Your task to perform on an android device: Go to Yahoo.com Image 0: 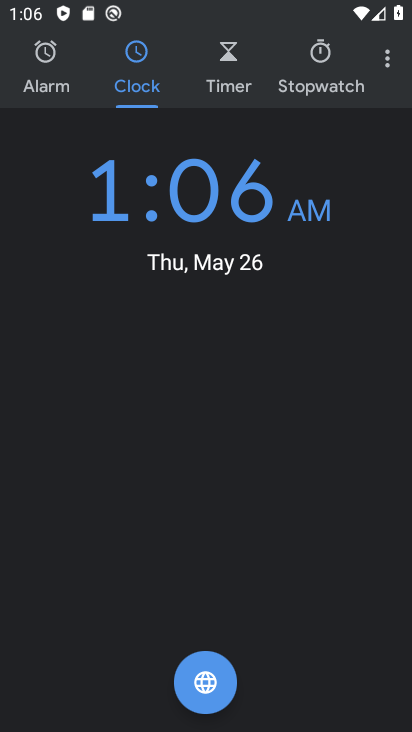
Step 0: press back button
Your task to perform on an android device: Go to Yahoo.com Image 1: 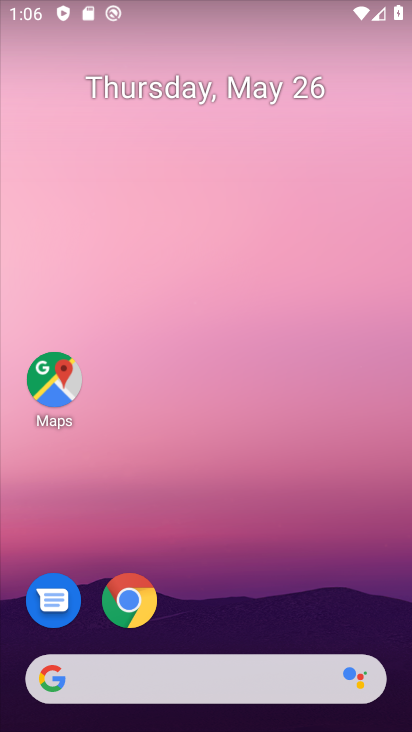
Step 1: click (129, 603)
Your task to perform on an android device: Go to Yahoo.com Image 2: 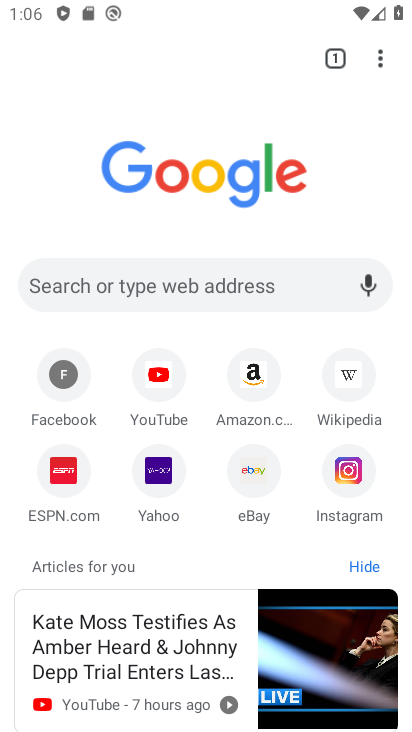
Step 2: click (194, 284)
Your task to perform on an android device: Go to Yahoo.com Image 3: 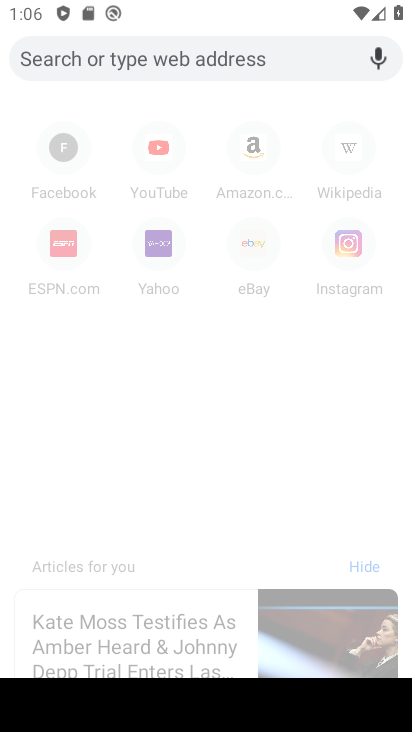
Step 3: type "Yahoo.com"
Your task to perform on an android device: Go to Yahoo.com Image 4: 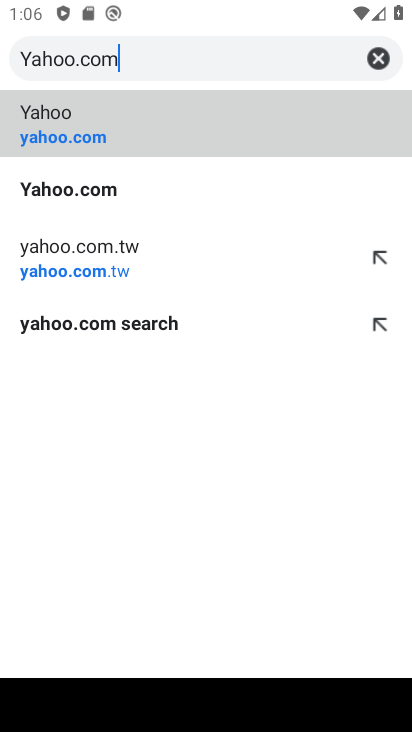
Step 4: click (90, 190)
Your task to perform on an android device: Go to Yahoo.com Image 5: 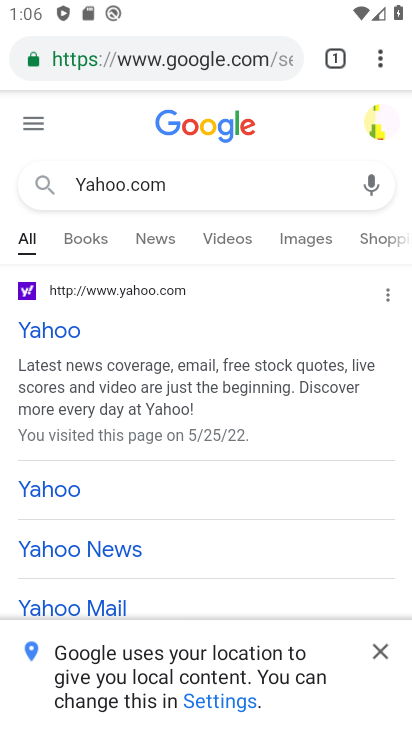
Step 5: click (83, 304)
Your task to perform on an android device: Go to Yahoo.com Image 6: 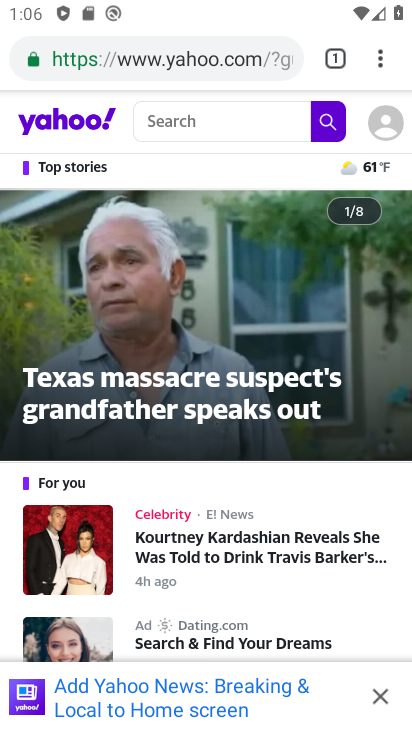
Step 6: task complete